Your task to perform on an android device: Open the calendar and show me this week's events? Image 0: 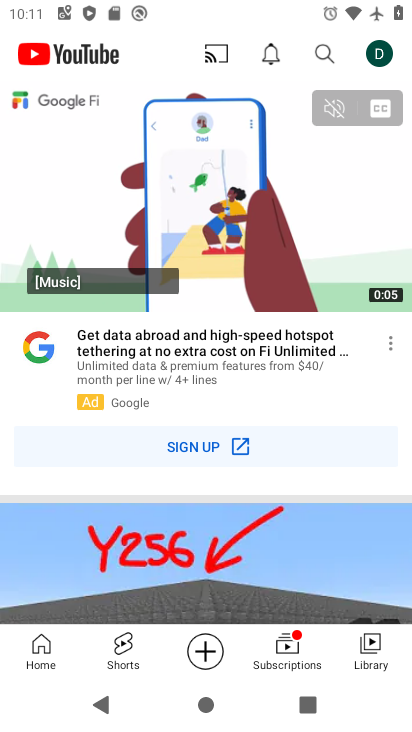
Step 0: press home button
Your task to perform on an android device: Open the calendar and show me this week's events? Image 1: 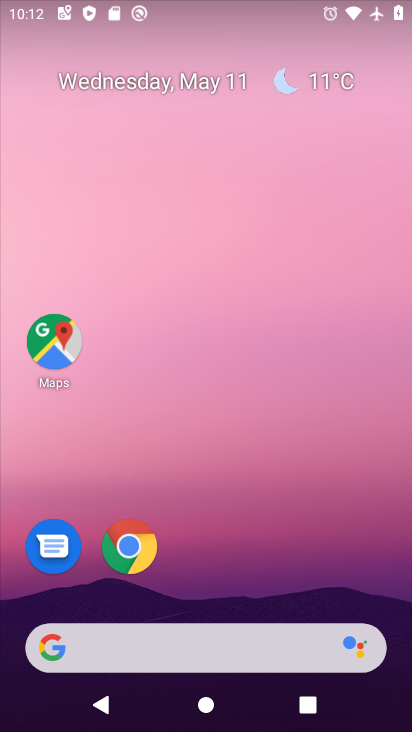
Step 1: drag from (399, 633) to (284, 138)
Your task to perform on an android device: Open the calendar and show me this week's events? Image 2: 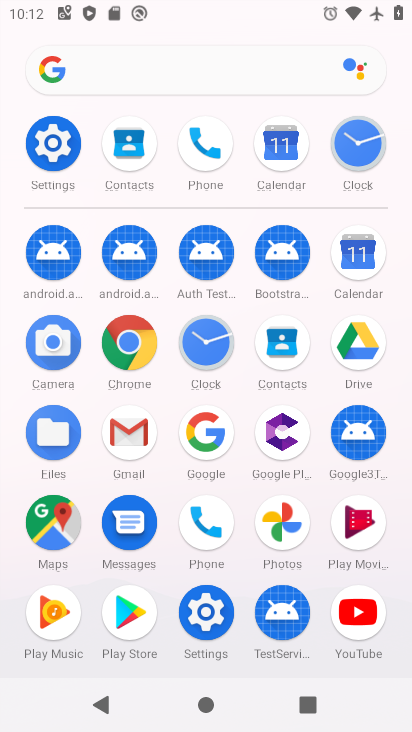
Step 2: click (357, 253)
Your task to perform on an android device: Open the calendar and show me this week's events? Image 3: 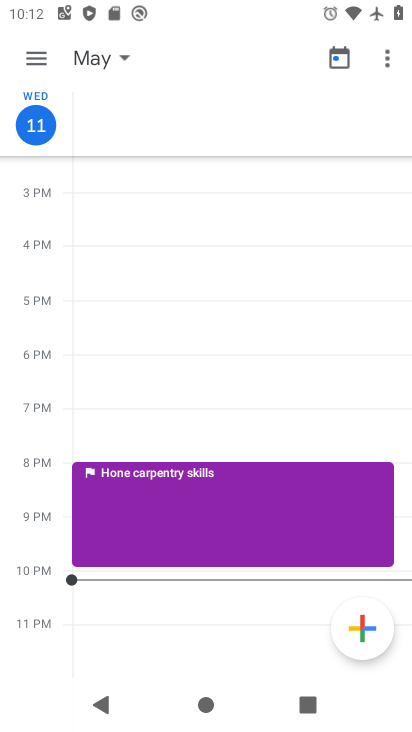
Step 3: click (35, 59)
Your task to perform on an android device: Open the calendar and show me this week's events? Image 4: 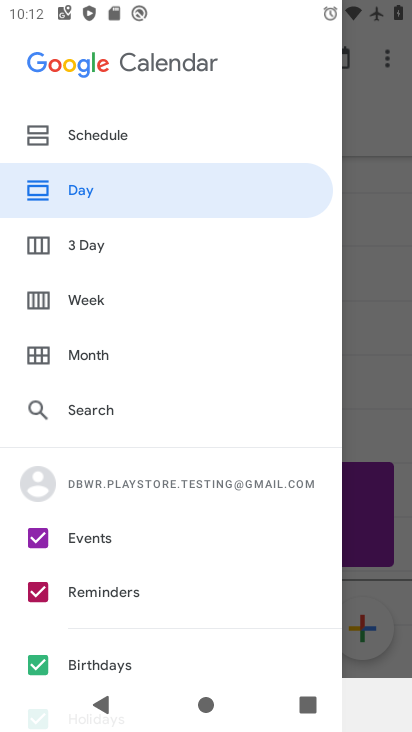
Step 4: click (91, 299)
Your task to perform on an android device: Open the calendar and show me this week's events? Image 5: 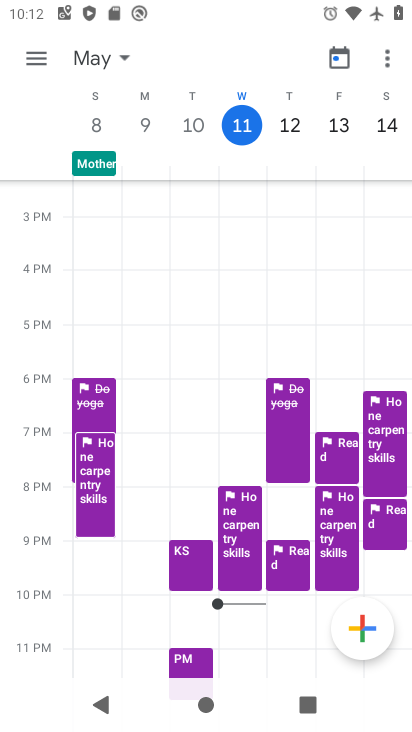
Step 5: task complete